Your task to perform on an android device: Open Google Chrome Image 0: 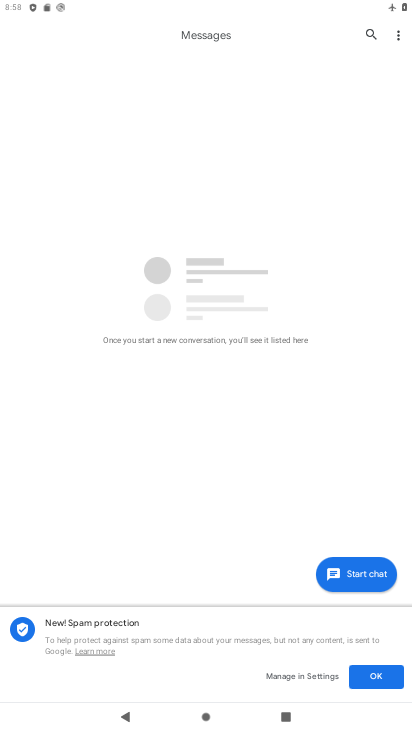
Step 0: press home button
Your task to perform on an android device: Open Google Chrome Image 1: 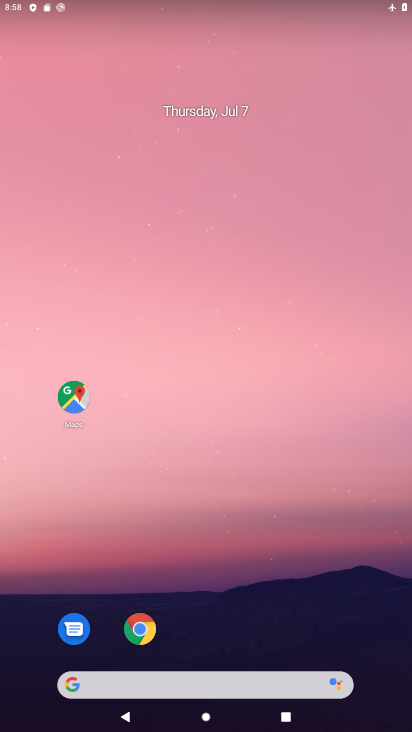
Step 1: click (140, 632)
Your task to perform on an android device: Open Google Chrome Image 2: 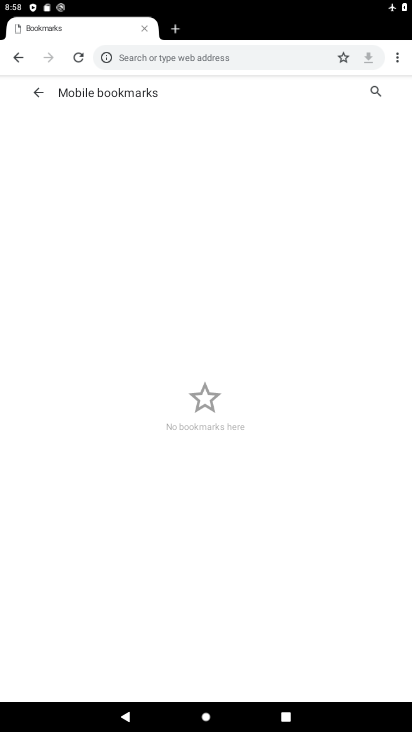
Step 2: click (33, 96)
Your task to perform on an android device: Open Google Chrome Image 3: 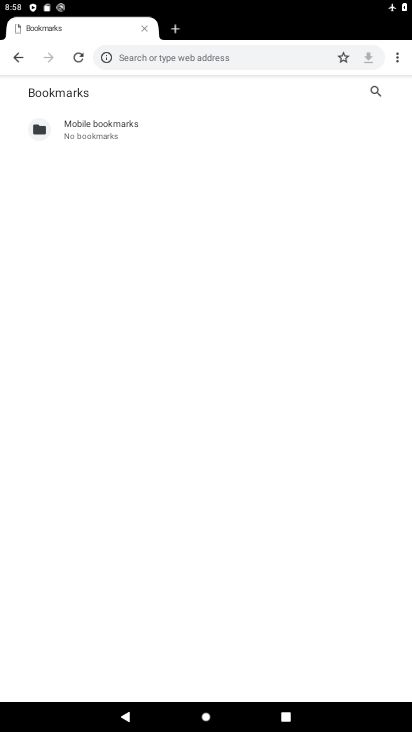
Step 3: click (12, 55)
Your task to perform on an android device: Open Google Chrome Image 4: 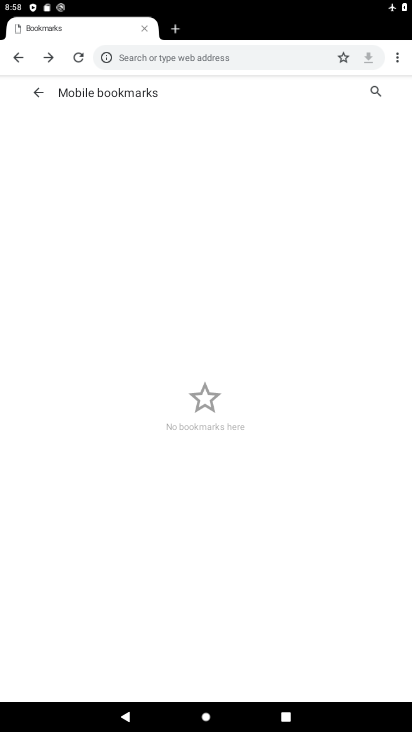
Step 4: task complete